Your task to perform on an android device: turn on javascript in the chrome app Image 0: 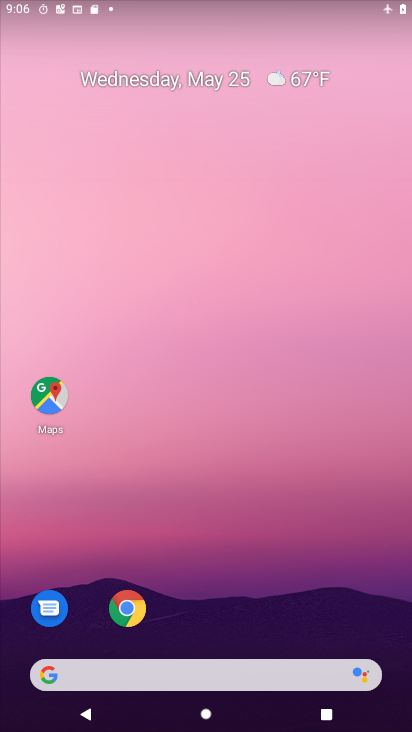
Step 0: click (124, 608)
Your task to perform on an android device: turn on javascript in the chrome app Image 1: 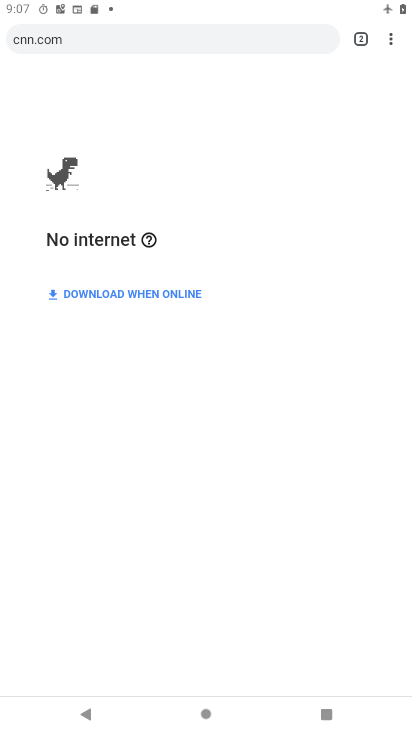
Step 1: click (392, 44)
Your task to perform on an android device: turn on javascript in the chrome app Image 2: 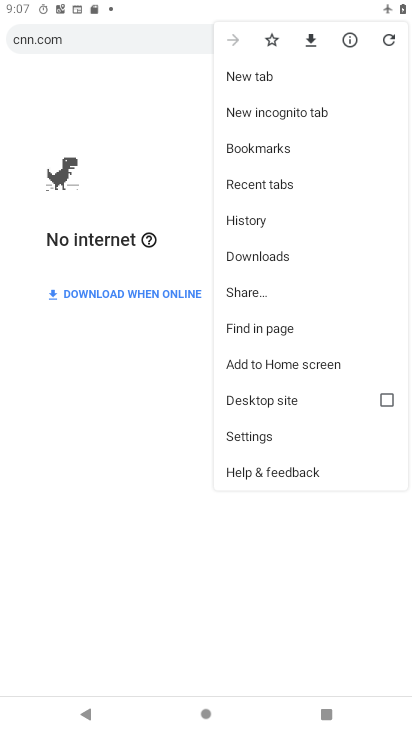
Step 2: click (255, 436)
Your task to perform on an android device: turn on javascript in the chrome app Image 3: 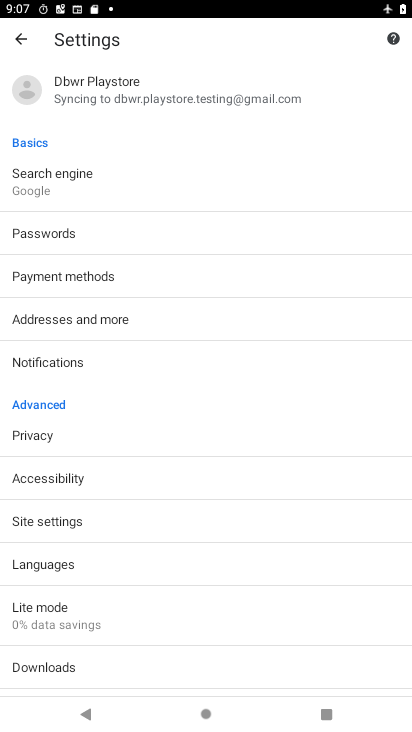
Step 3: drag from (117, 652) to (138, 251)
Your task to perform on an android device: turn on javascript in the chrome app Image 4: 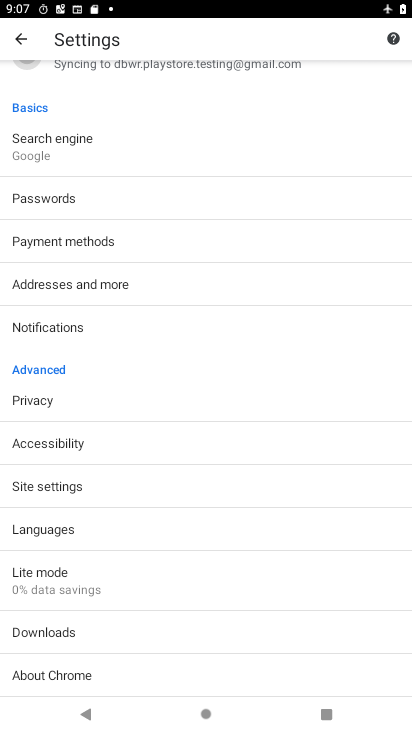
Step 4: click (52, 484)
Your task to perform on an android device: turn on javascript in the chrome app Image 5: 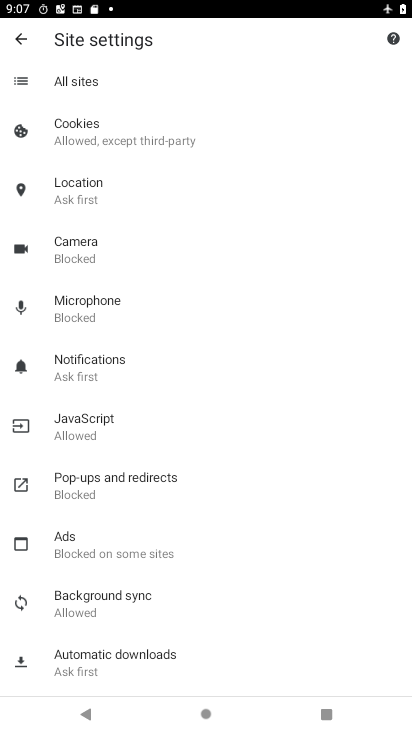
Step 5: click (75, 426)
Your task to perform on an android device: turn on javascript in the chrome app Image 6: 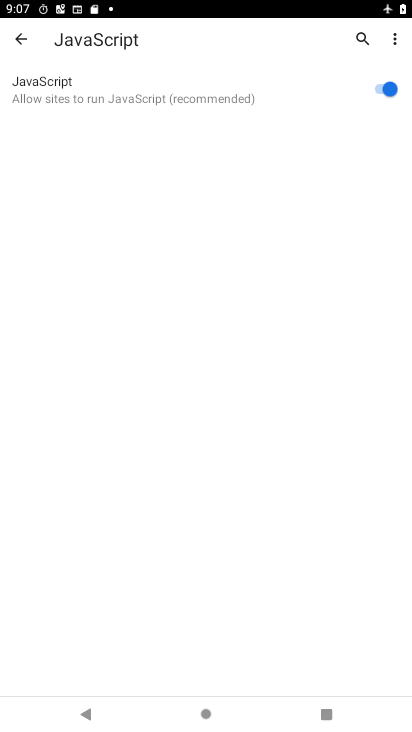
Step 6: task complete